Your task to perform on an android device: open the mobile data screen to see how much data has been used Image 0: 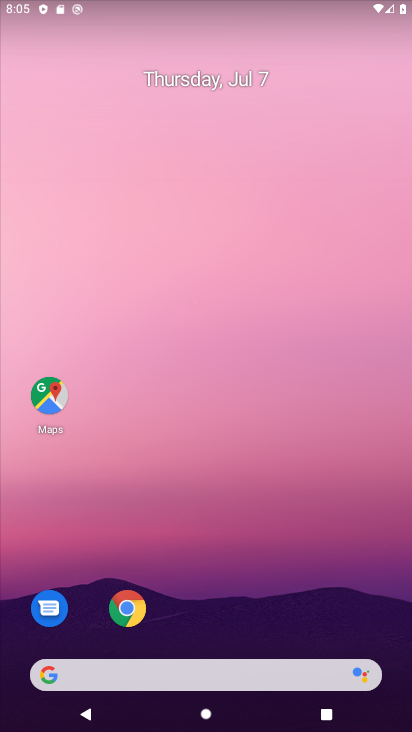
Step 0: drag from (174, 661) to (195, 367)
Your task to perform on an android device: open the mobile data screen to see how much data has been used Image 1: 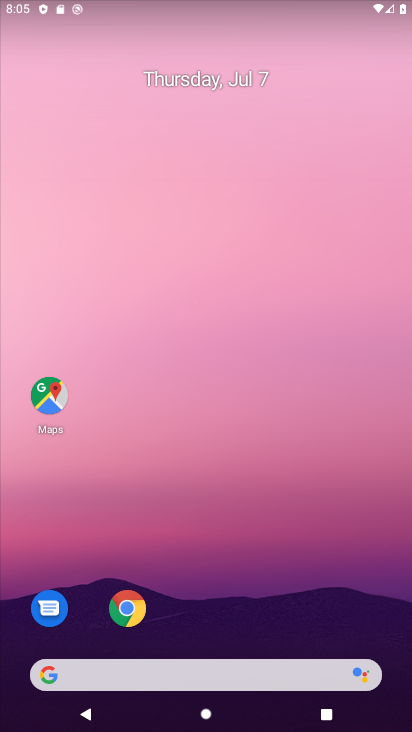
Step 1: drag from (122, 660) to (185, 227)
Your task to perform on an android device: open the mobile data screen to see how much data has been used Image 2: 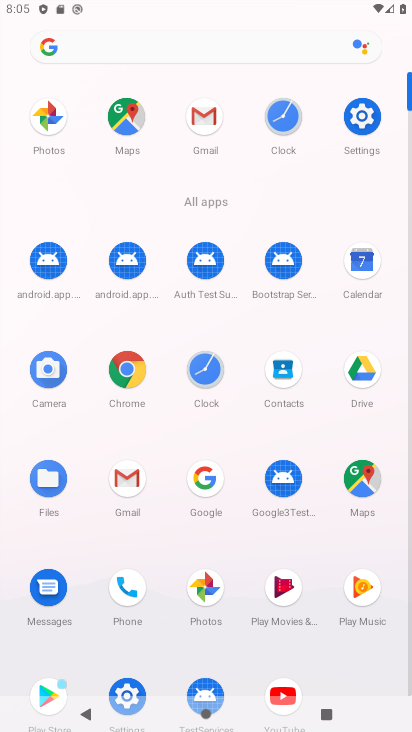
Step 2: click (358, 124)
Your task to perform on an android device: open the mobile data screen to see how much data has been used Image 3: 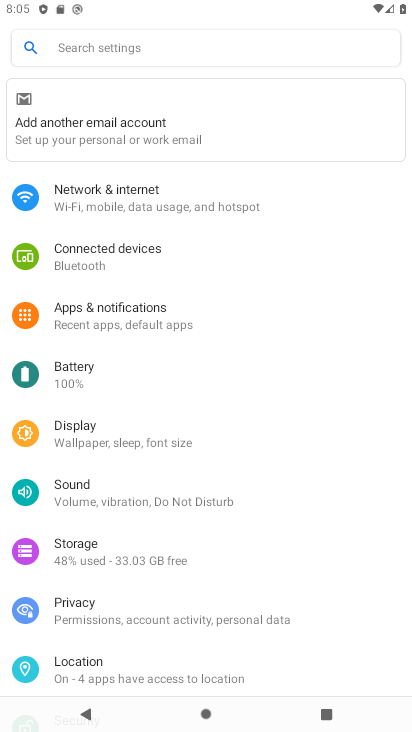
Step 3: click (128, 194)
Your task to perform on an android device: open the mobile data screen to see how much data has been used Image 4: 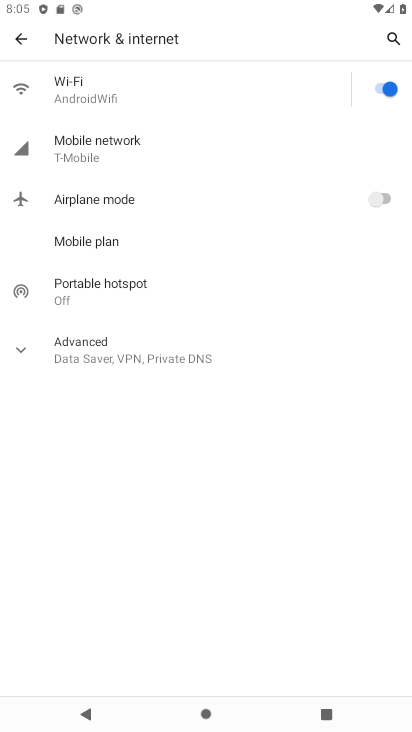
Step 4: click (95, 150)
Your task to perform on an android device: open the mobile data screen to see how much data has been used Image 5: 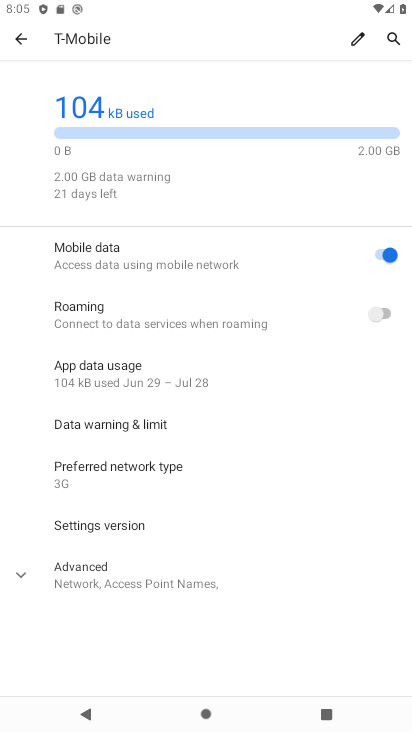
Step 5: click (104, 567)
Your task to perform on an android device: open the mobile data screen to see how much data has been used Image 6: 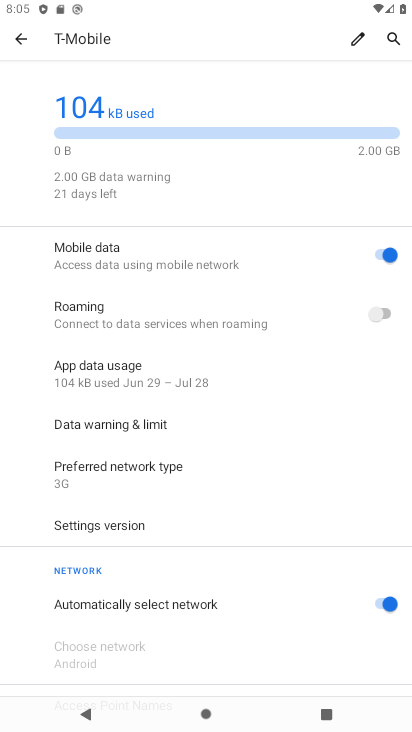
Step 6: task complete